Your task to perform on an android device: toggle notification dots Image 0: 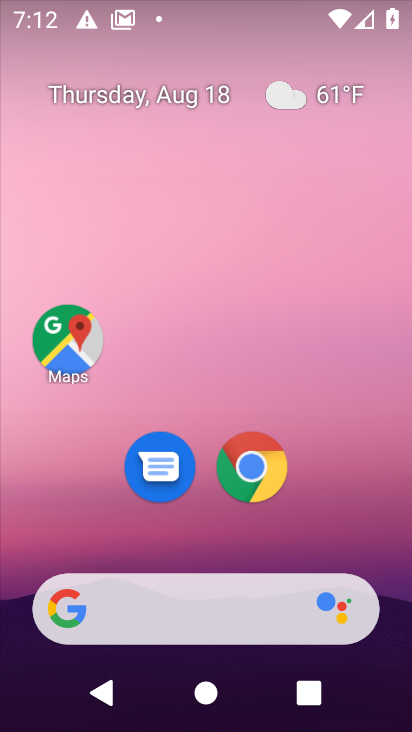
Step 0: press home button
Your task to perform on an android device: toggle notification dots Image 1: 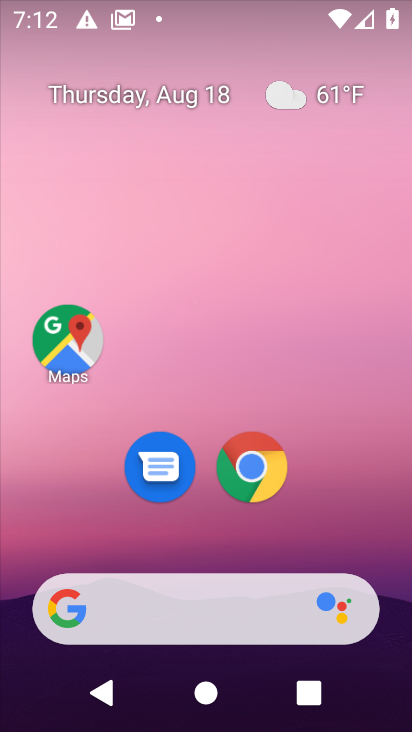
Step 1: task complete